Your task to perform on an android device: Open Yahoo.com Image 0: 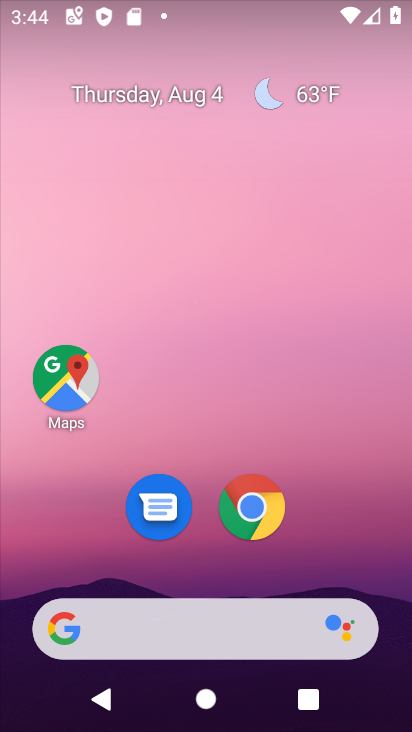
Step 0: click (134, 624)
Your task to perform on an android device: Open Yahoo.com Image 1: 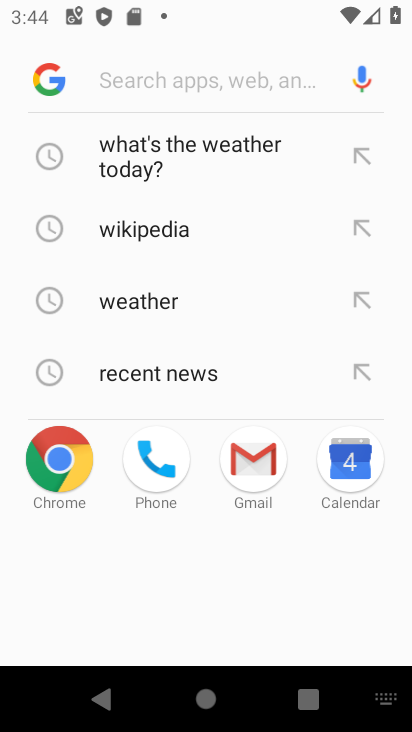
Step 1: type "Yahoo.com"
Your task to perform on an android device: Open Yahoo.com Image 2: 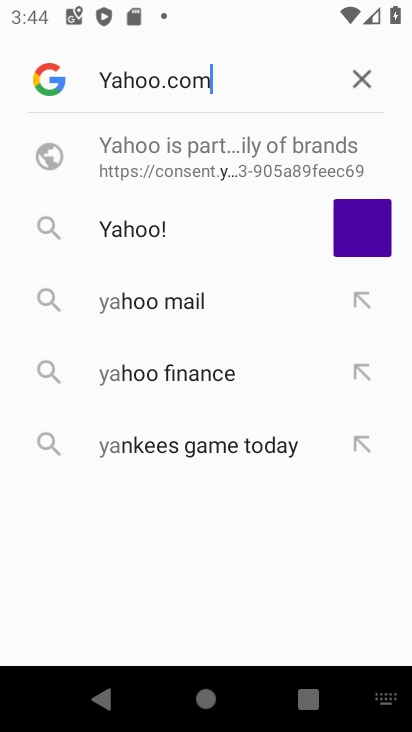
Step 2: type ""
Your task to perform on an android device: Open Yahoo.com Image 3: 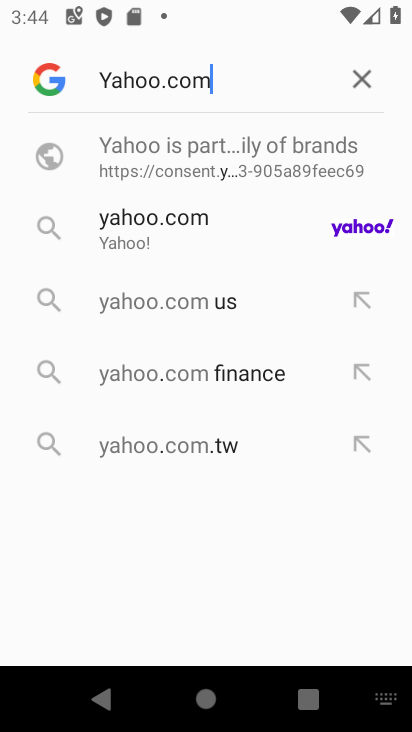
Step 3: click (160, 213)
Your task to perform on an android device: Open Yahoo.com Image 4: 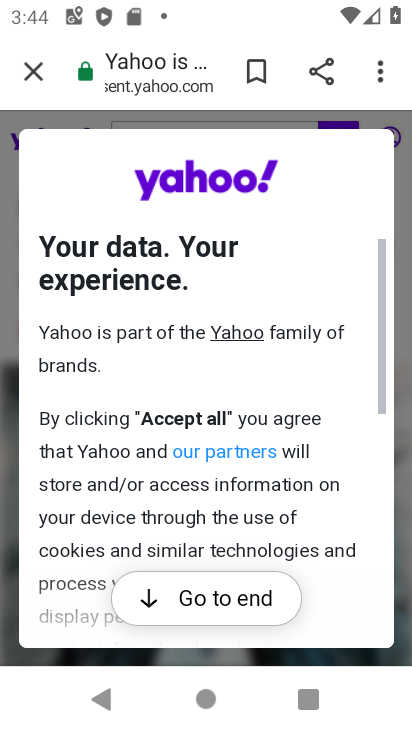
Step 4: task complete